Your task to perform on an android device: What's the latest news in space technology? Image 0: 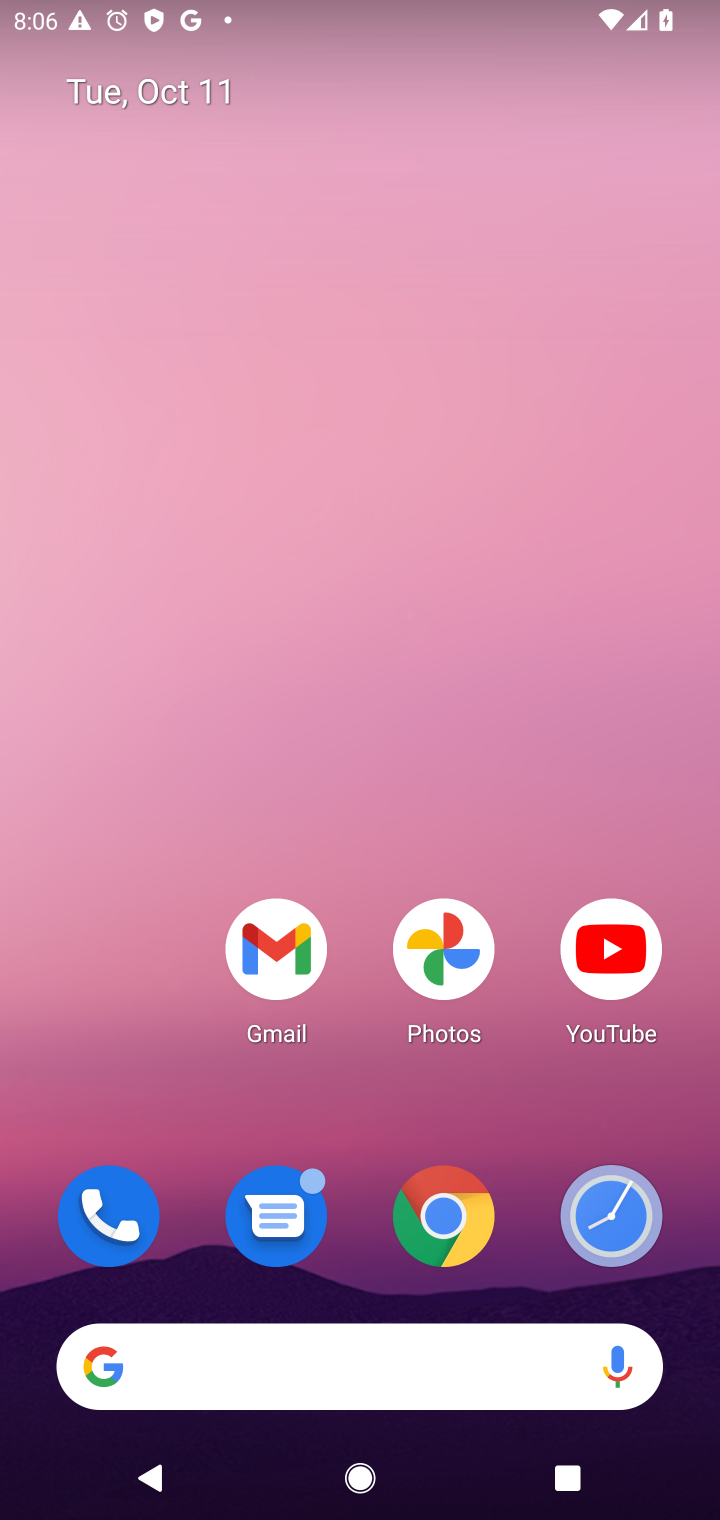
Step 0: click (444, 1254)
Your task to perform on an android device: What's the latest news in space technology? Image 1: 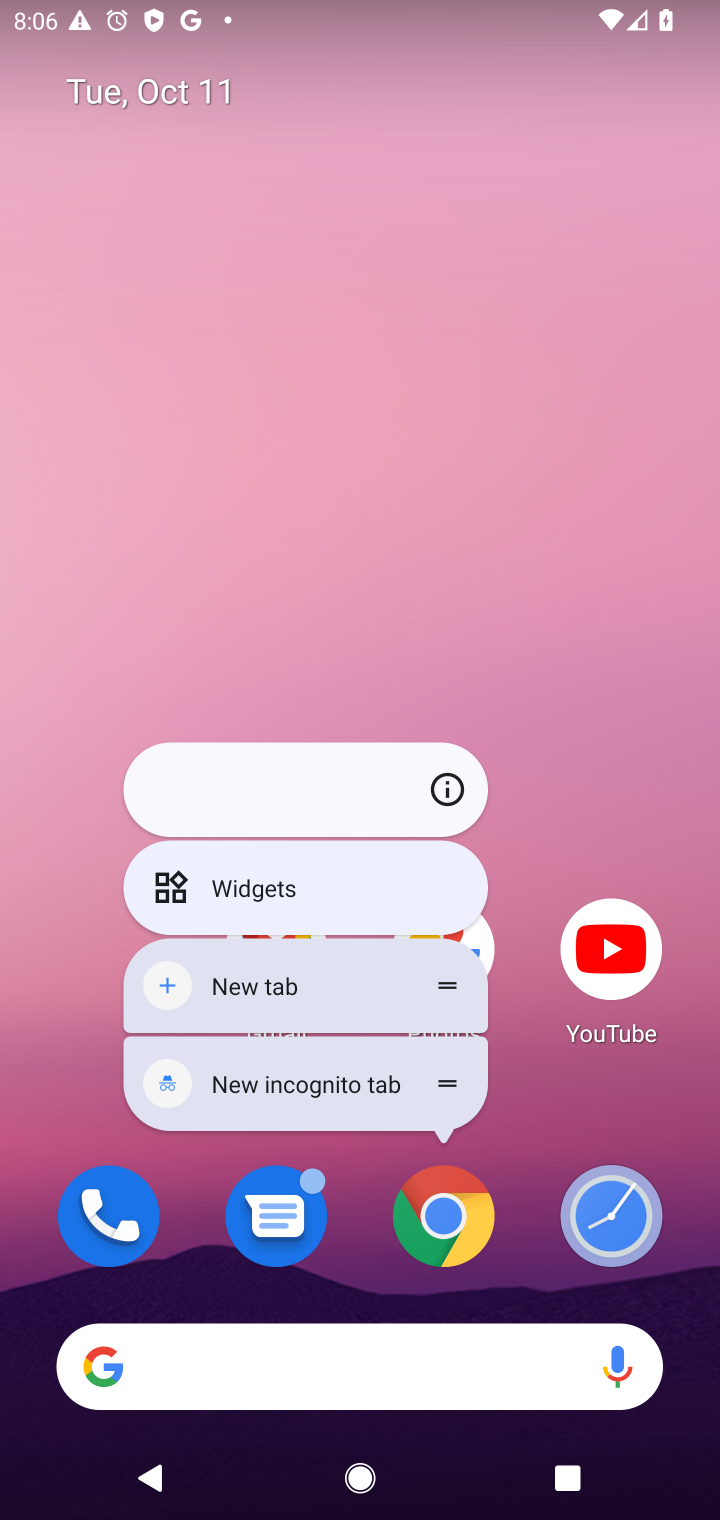
Step 1: click (480, 1236)
Your task to perform on an android device: What's the latest news in space technology? Image 2: 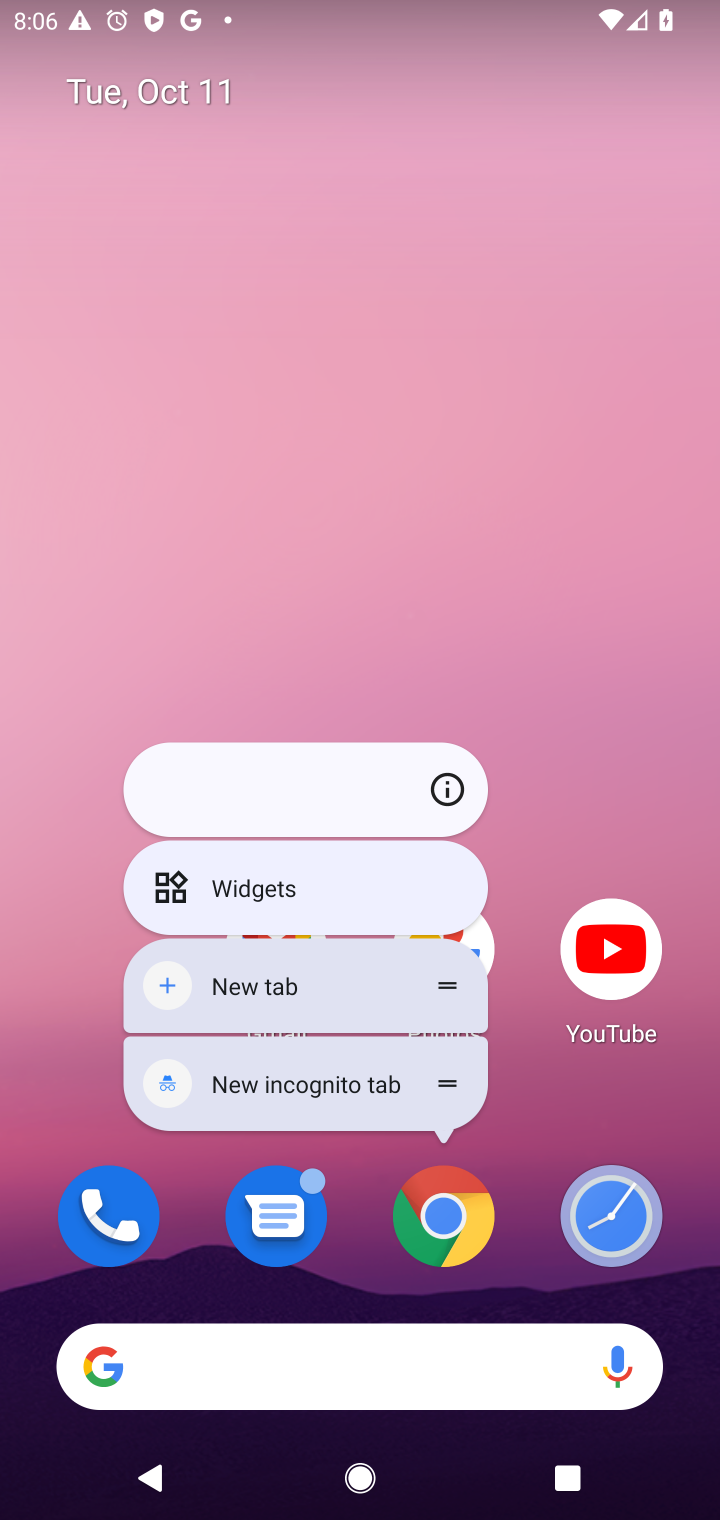
Step 2: click (436, 1216)
Your task to perform on an android device: What's the latest news in space technology? Image 3: 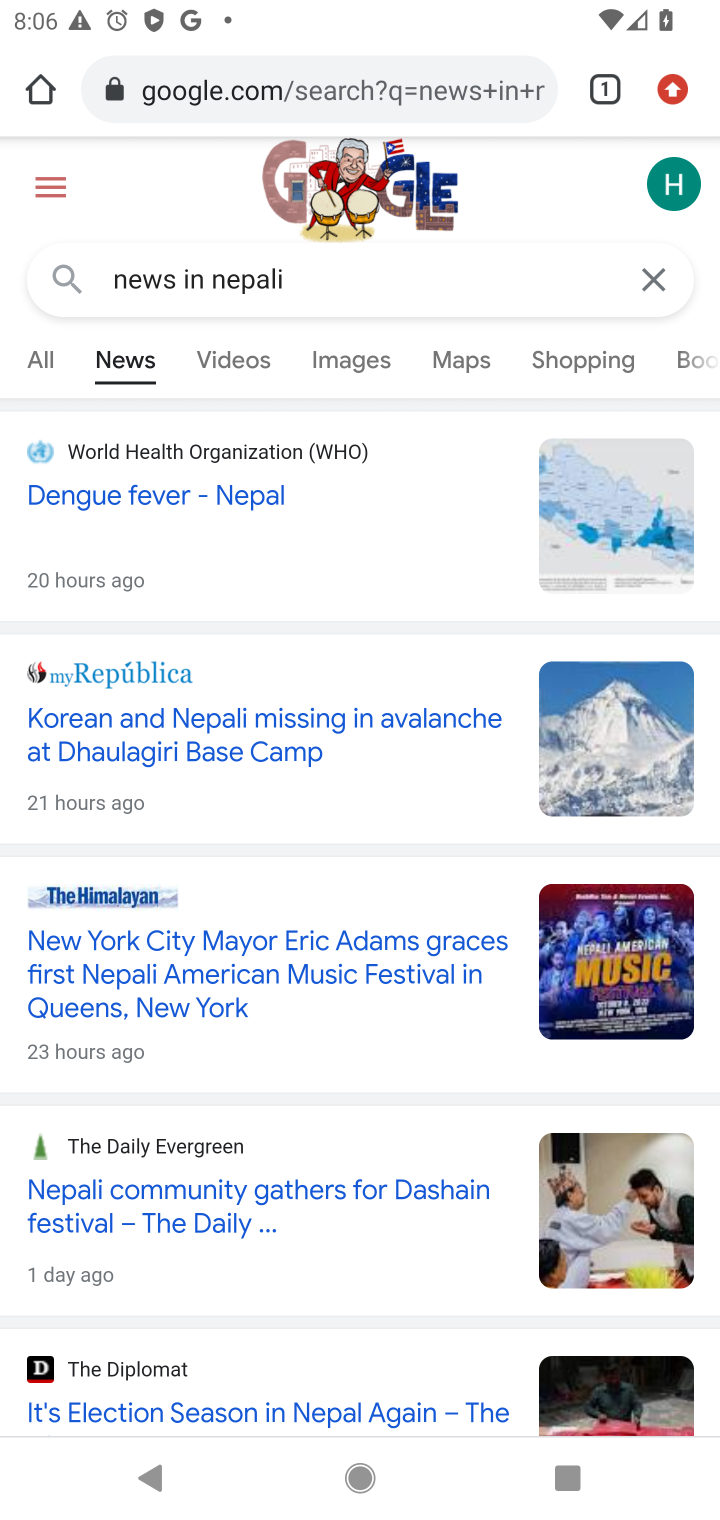
Step 3: click (648, 277)
Your task to perform on an android device: What's the latest news in space technology? Image 4: 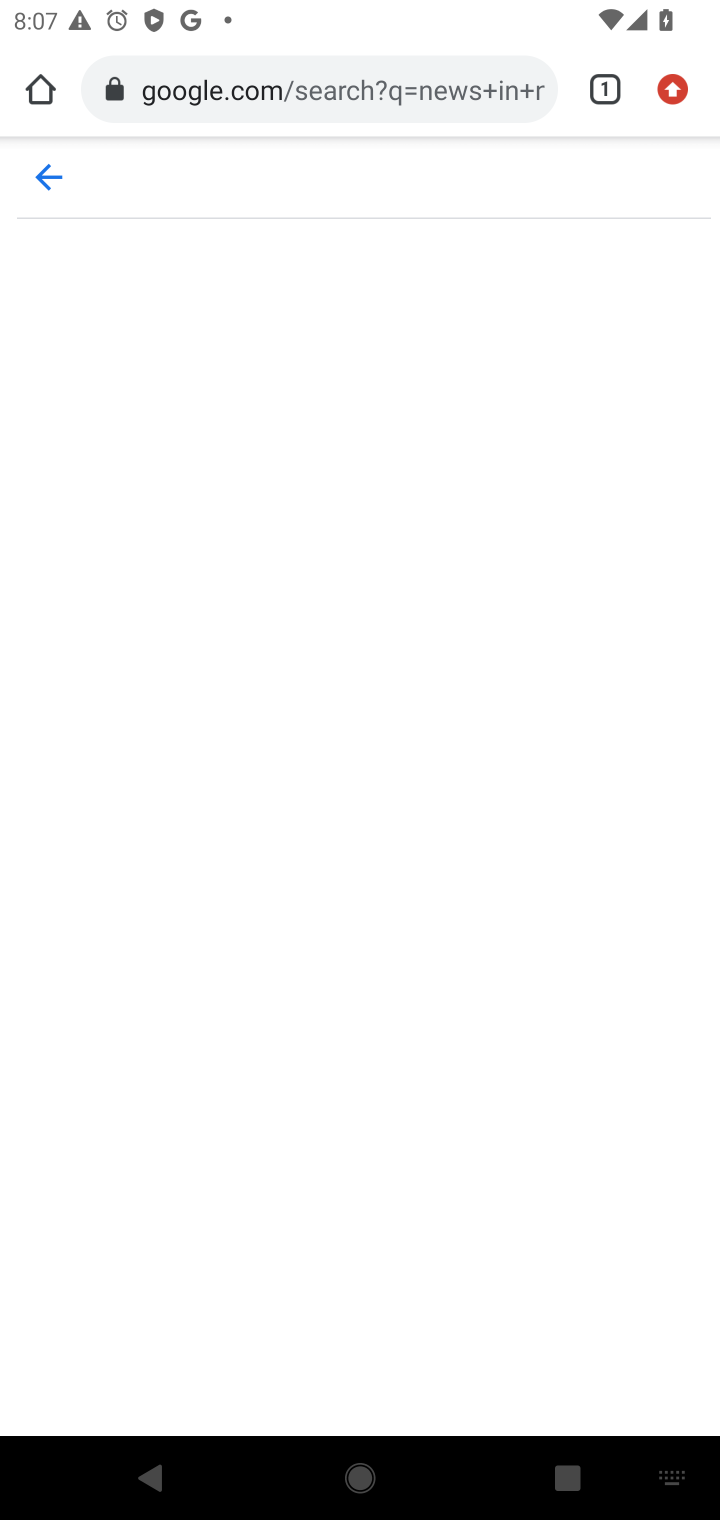
Step 4: type "latest news in space technology?"
Your task to perform on an android device: What's the latest news in space technology? Image 5: 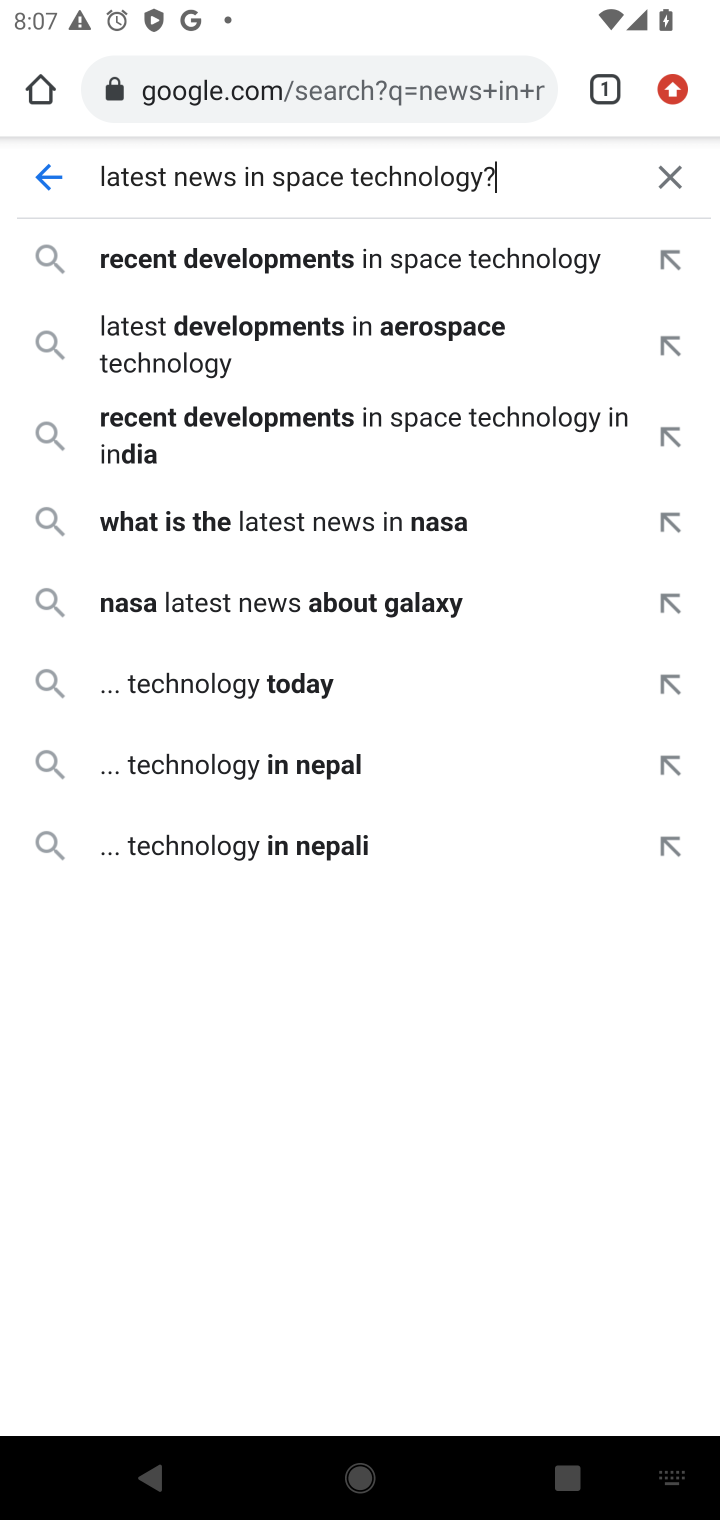
Step 5: press enter
Your task to perform on an android device: What's the latest news in space technology? Image 6: 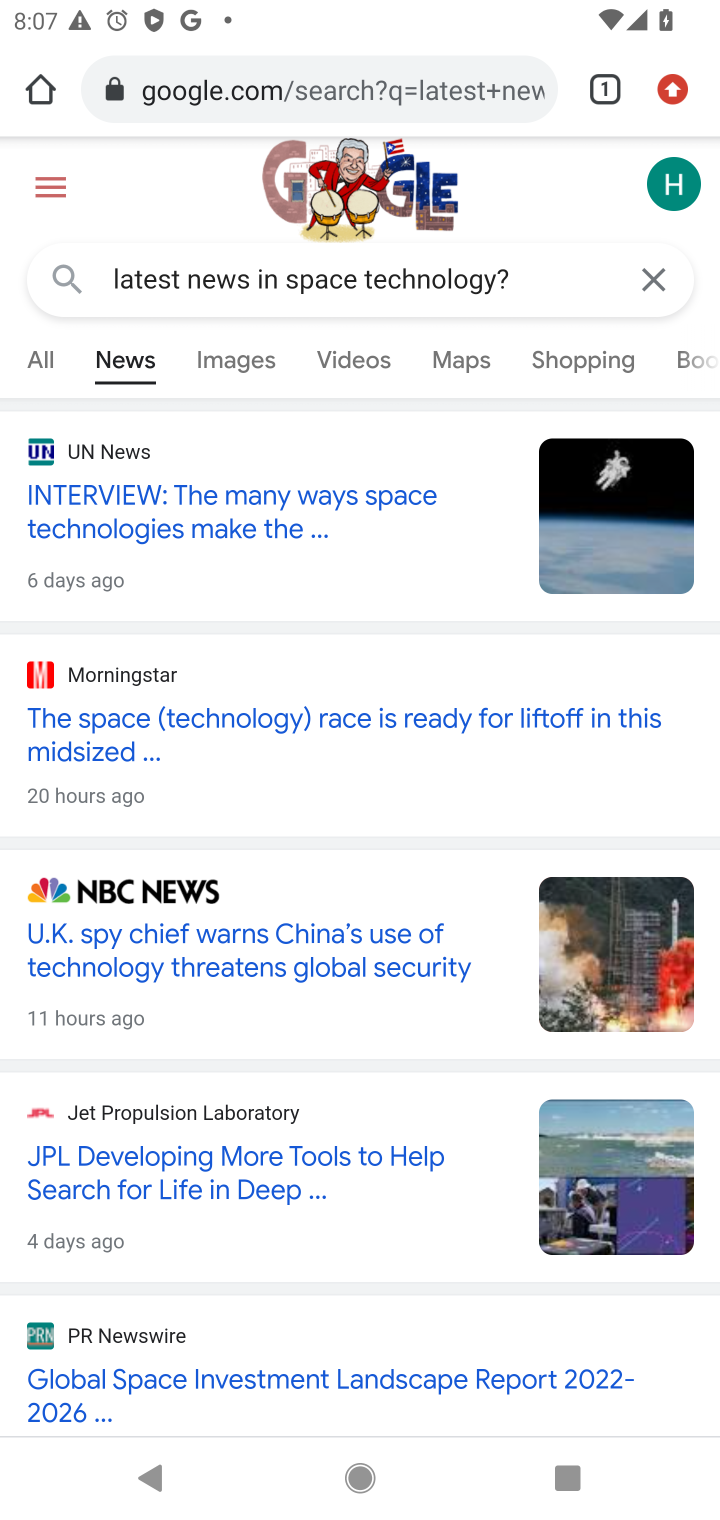
Step 6: task complete